Your task to perform on an android device: Open the web browser Image 0: 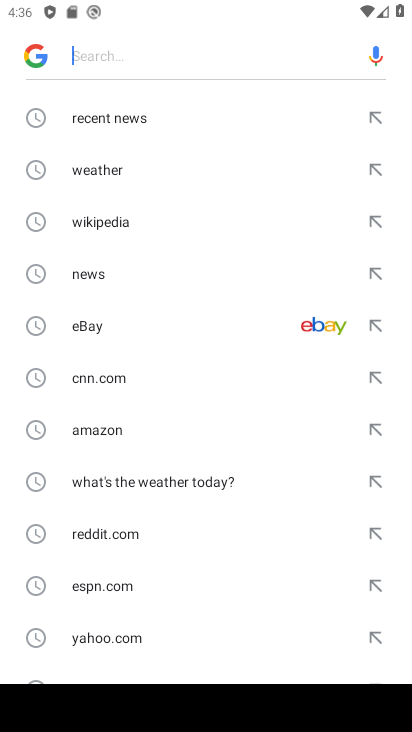
Step 0: press home button
Your task to perform on an android device: Open the web browser Image 1: 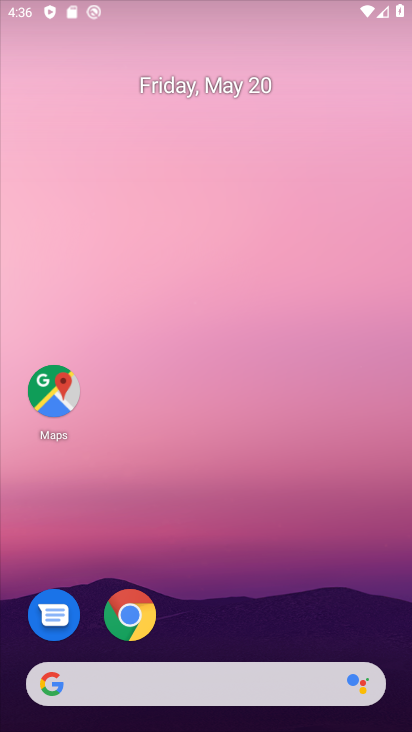
Step 1: drag from (191, 587) to (243, 109)
Your task to perform on an android device: Open the web browser Image 2: 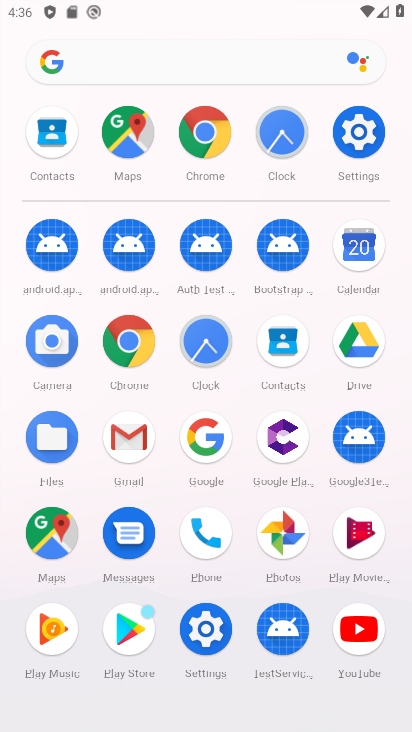
Step 2: drag from (198, 464) to (207, 178)
Your task to perform on an android device: Open the web browser Image 3: 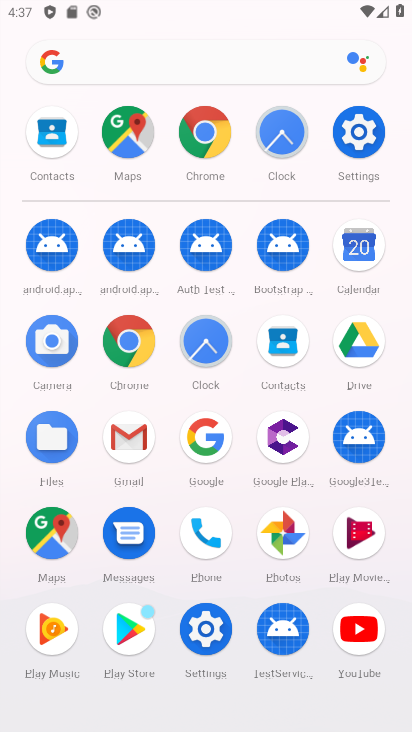
Step 3: click (123, 359)
Your task to perform on an android device: Open the web browser Image 4: 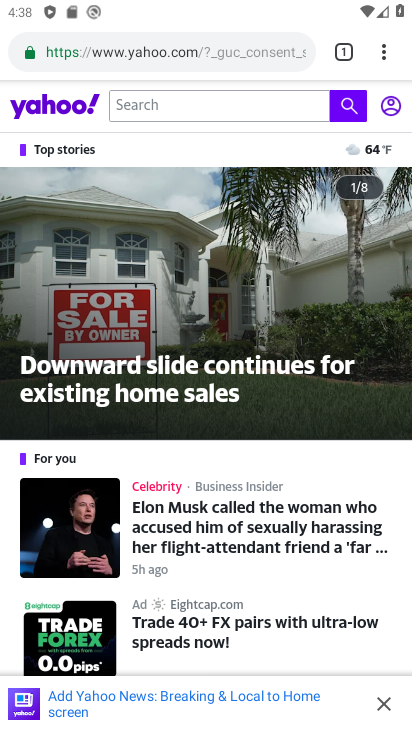
Step 4: task complete